Your task to perform on an android device: Open eBay Image 0: 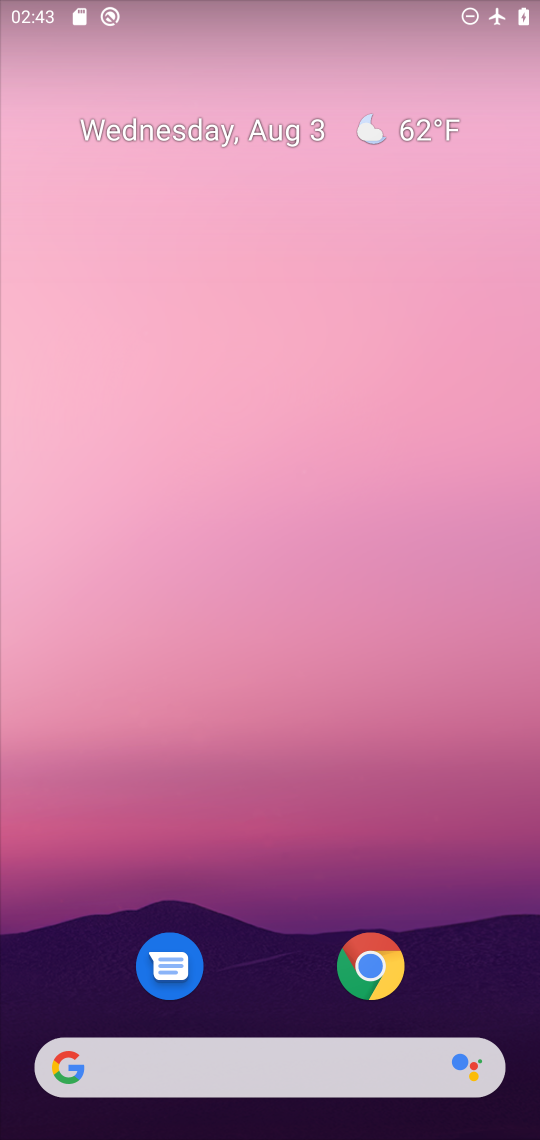
Step 0: click (337, 987)
Your task to perform on an android device: Open eBay Image 1: 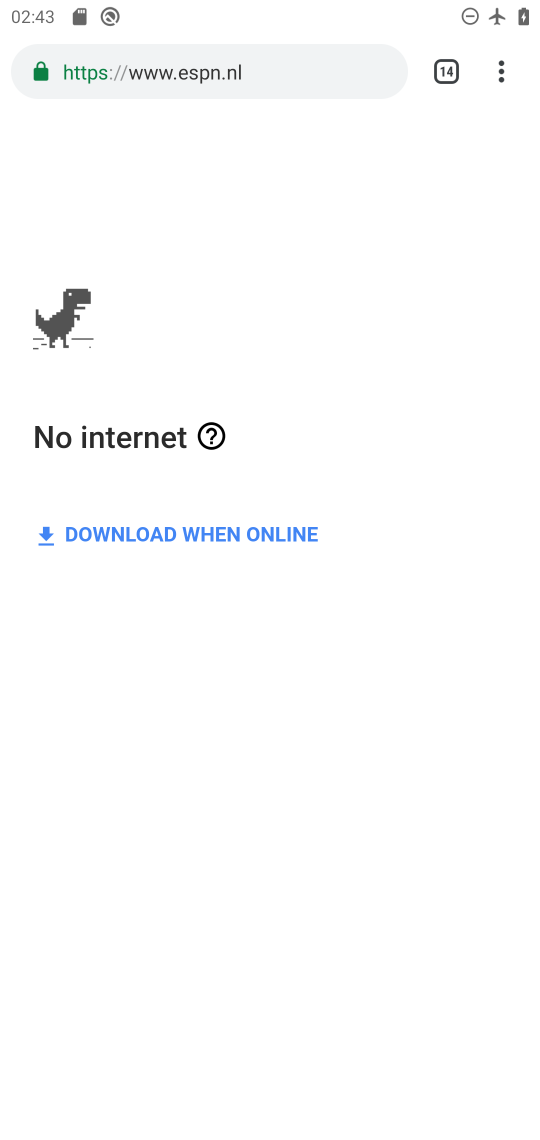
Step 1: click (452, 78)
Your task to perform on an android device: Open eBay Image 2: 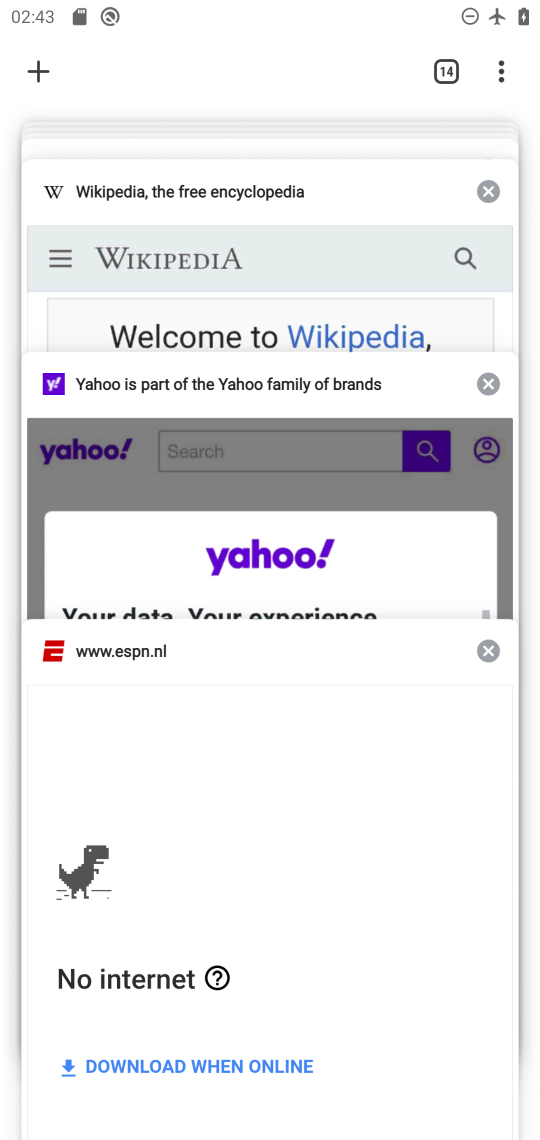
Step 2: click (39, 60)
Your task to perform on an android device: Open eBay Image 3: 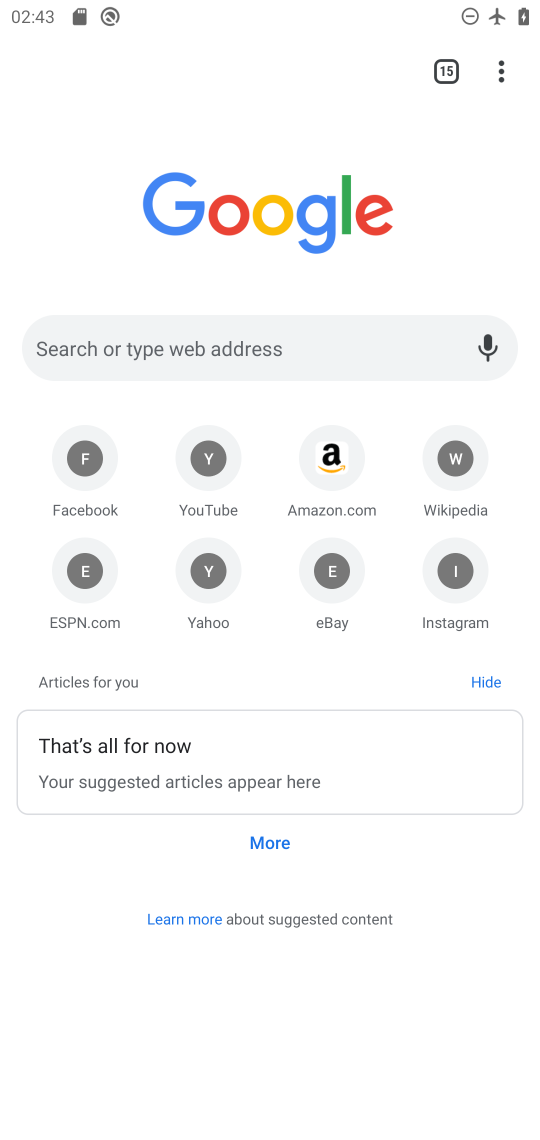
Step 3: click (318, 570)
Your task to perform on an android device: Open eBay Image 4: 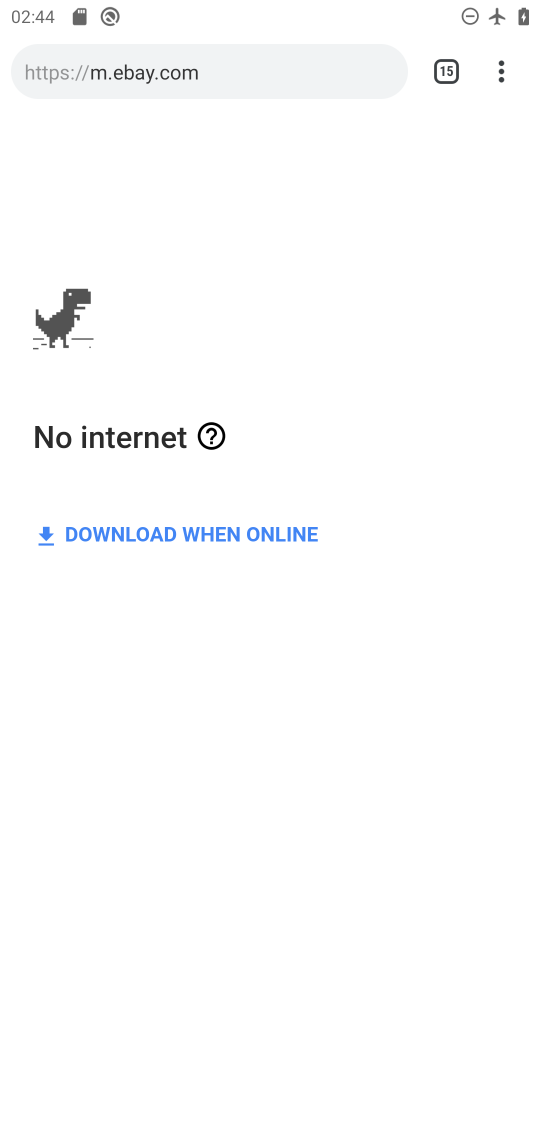
Step 4: task complete